Your task to perform on an android device: Open Android settings Image 0: 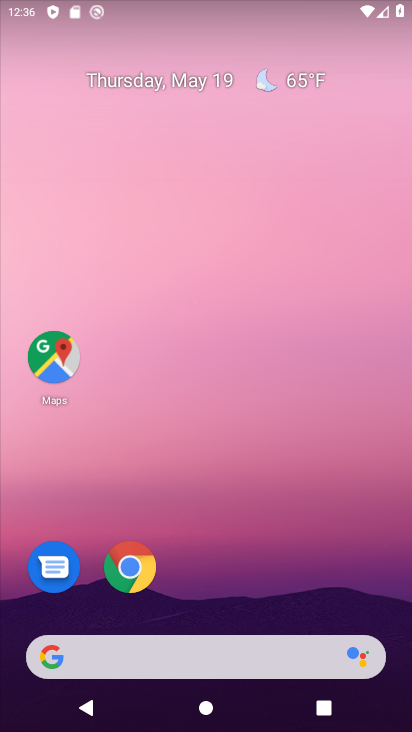
Step 0: drag from (266, 544) to (275, 85)
Your task to perform on an android device: Open Android settings Image 1: 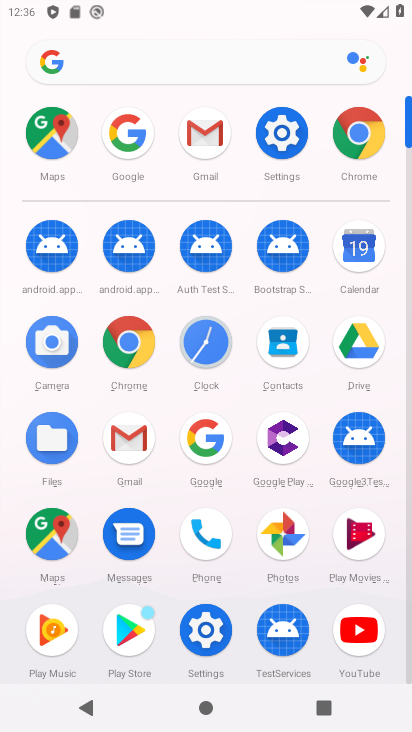
Step 1: click (283, 143)
Your task to perform on an android device: Open Android settings Image 2: 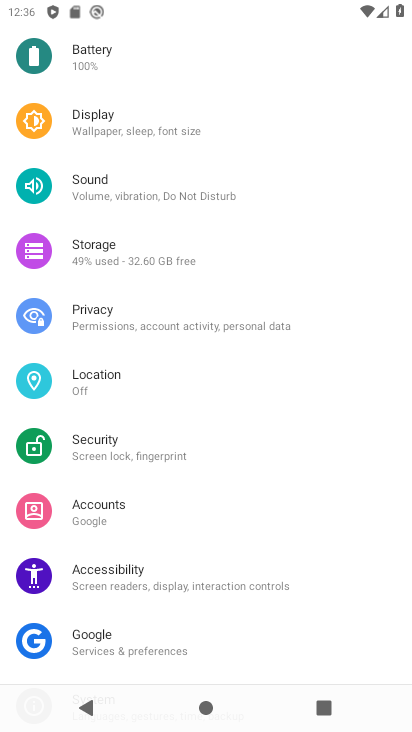
Step 2: drag from (232, 630) to (230, 275)
Your task to perform on an android device: Open Android settings Image 3: 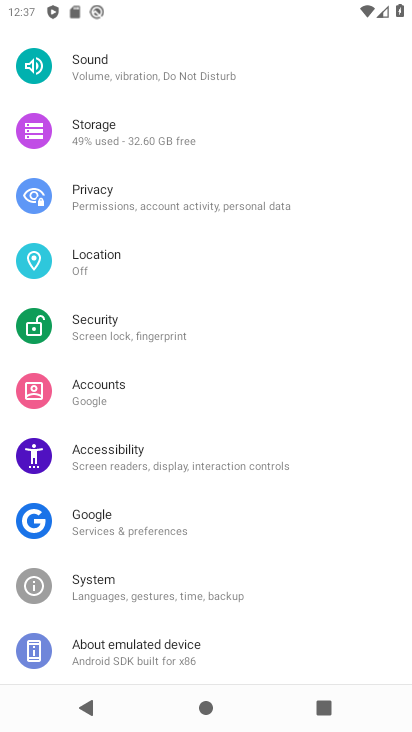
Step 3: click (180, 651)
Your task to perform on an android device: Open Android settings Image 4: 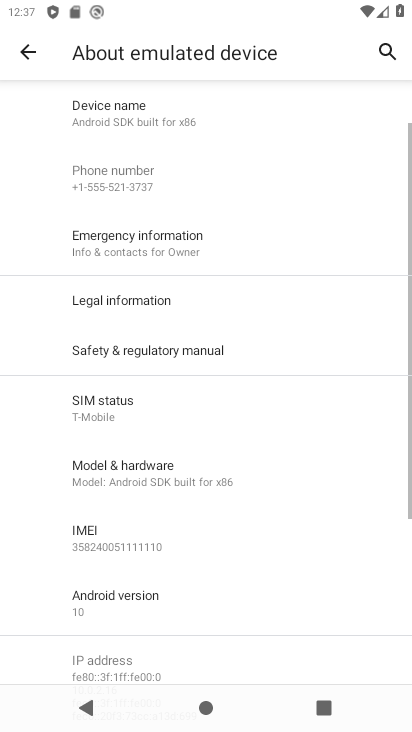
Step 4: click (138, 600)
Your task to perform on an android device: Open Android settings Image 5: 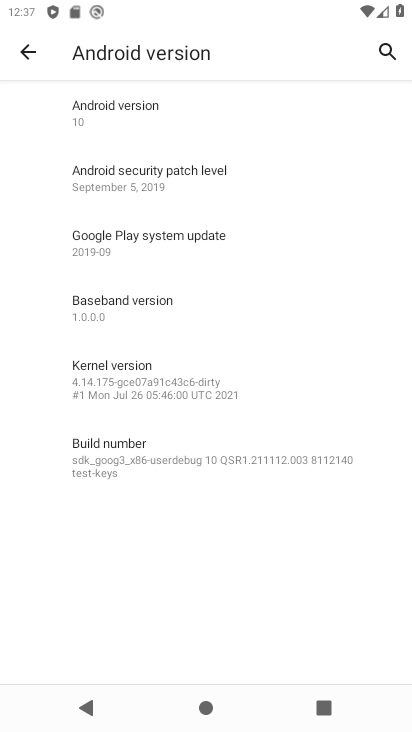
Step 5: task complete